Your task to perform on an android device: Open the map Image 0: 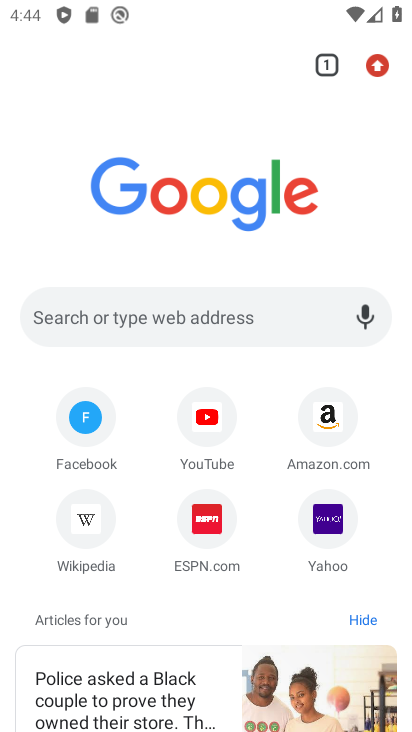
Step 0: press home button
Your task to perform on an android device: Open the map Image 1: 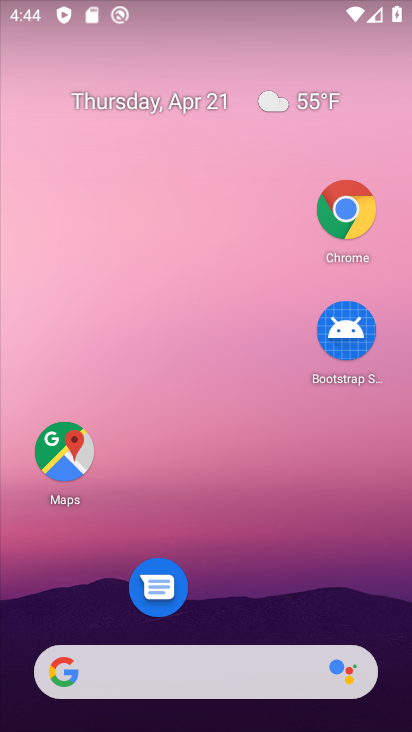
Step 1: drag from (258, 521) to (289, 118)
Your task to perform on an android device: Open the map Image 2: 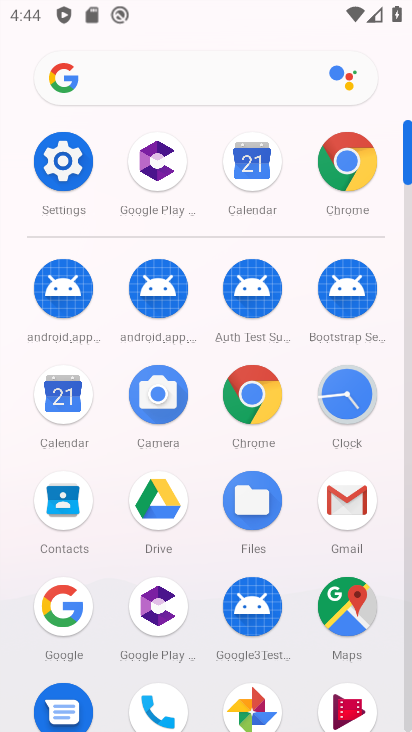
Step 2: click (349, 596)
Your task to perform on an android device: Open the map Image 3: 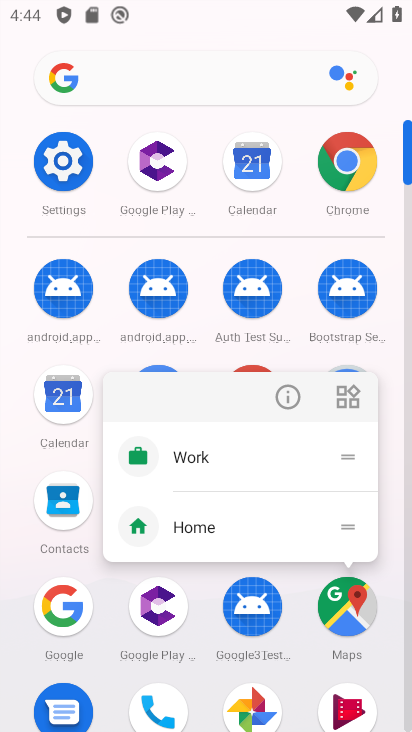
Step 3: click (354, 602)
Your task to perform on an android device: Open the map Image 4: 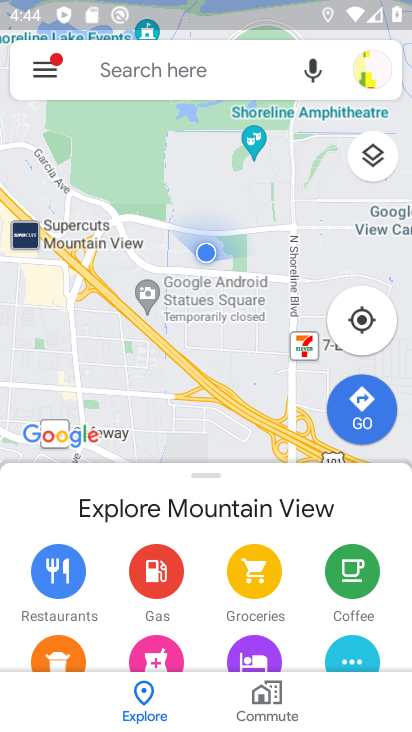
Step 4: task complete